Your task to perform on an android device: What's on my calendar tomorrow? Image 0: 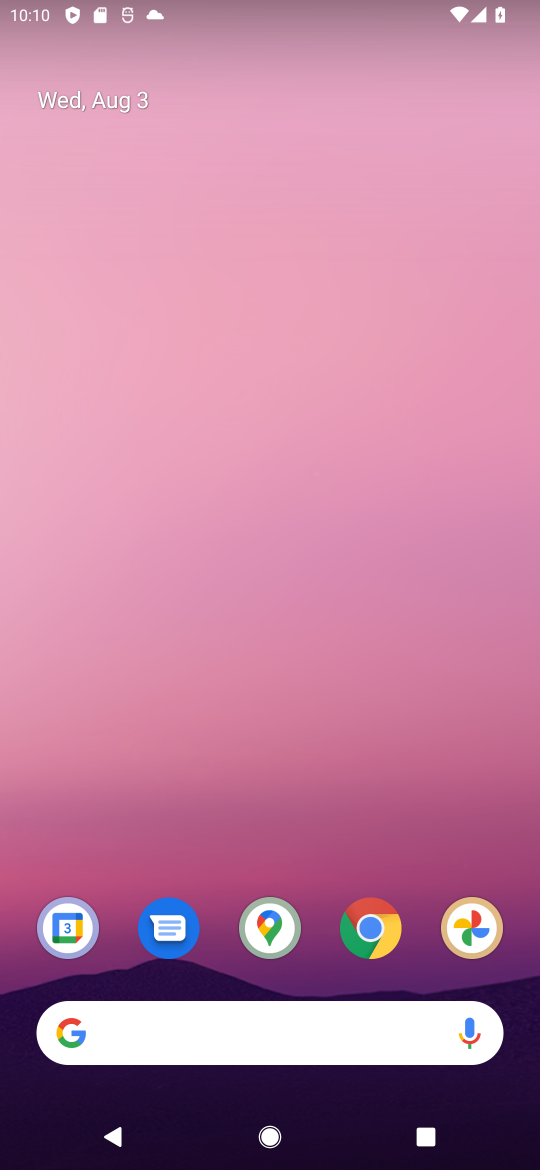
Step 0: click (68, 926)
Your task to perform on an android device: What's on my calendar tomorrow? Image 1: 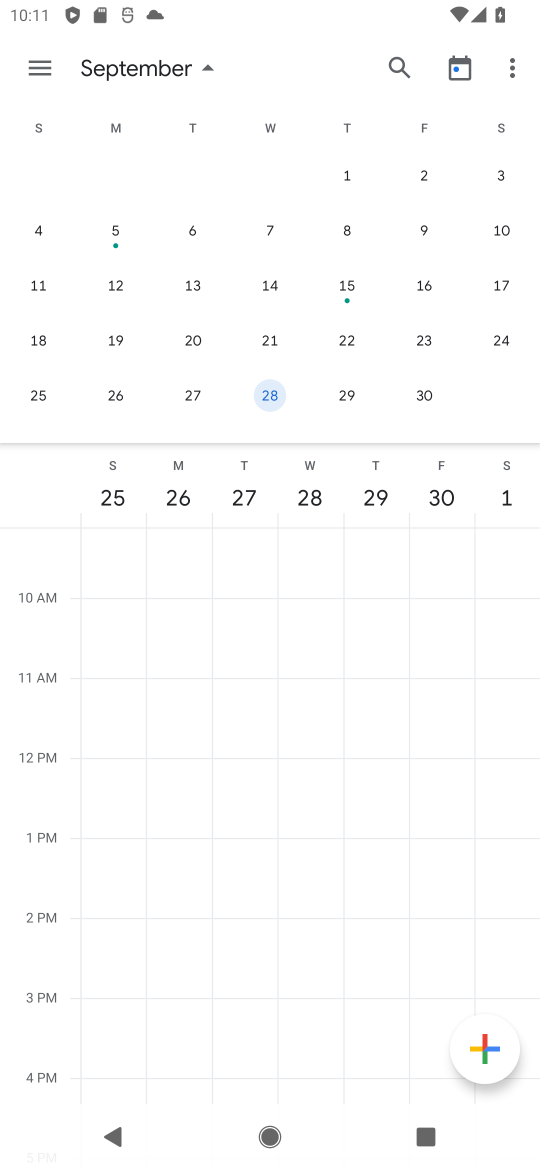
Step 1: click (43, 69)
Your task to perform on an android device: What's on my calendar tomorrow? Image 2: 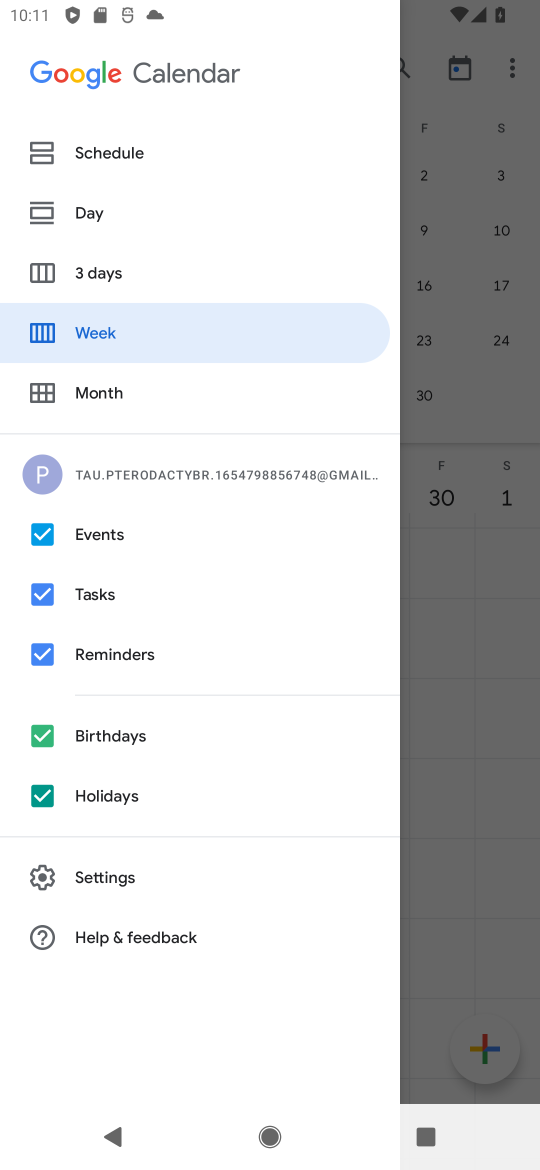
Step 2: click (130, 208)
Your task to perform on an android device: What's on my calendar tomorrow? Image 3: 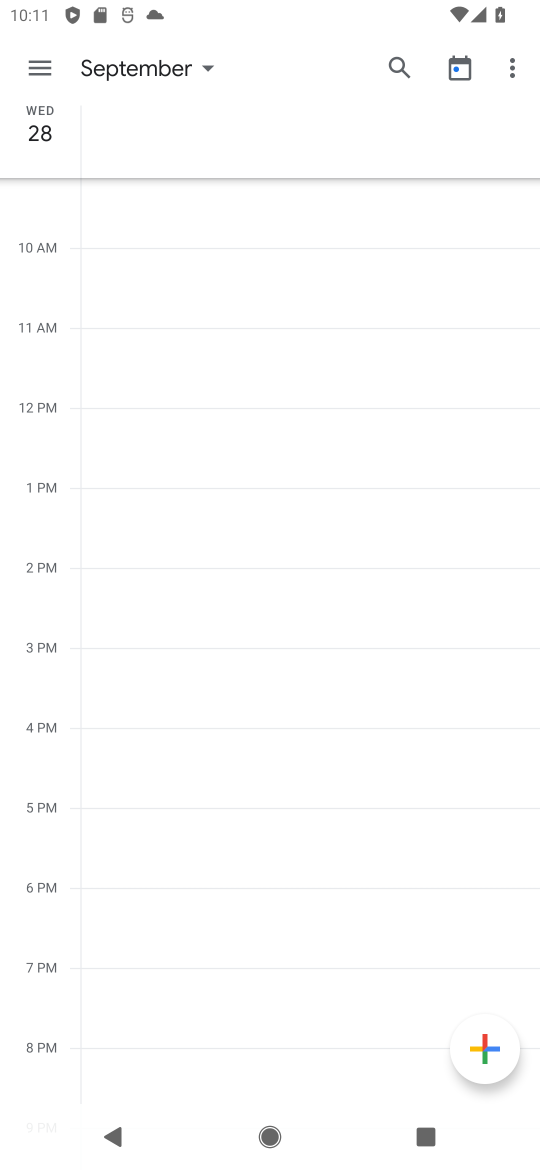
Step 3: click (160, 74)
Your task to perform on an android device: What's on my calendar tomorrow? Image 4: 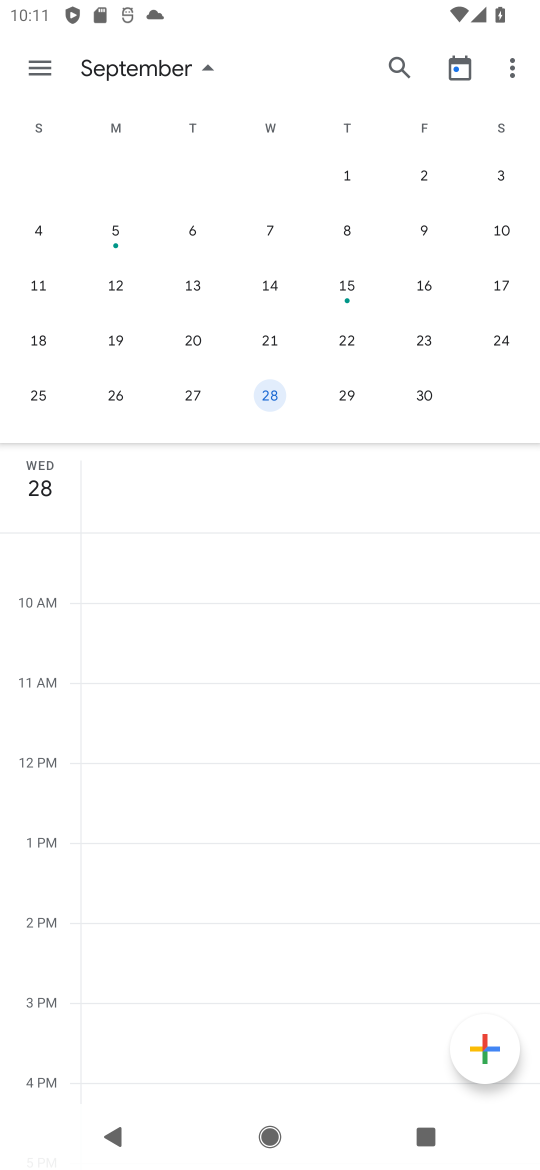
Step 4: drag from (35, 215) to (524, 403)
Your task to perform on an android device: What's on my calendar tomorrow? Image 5: 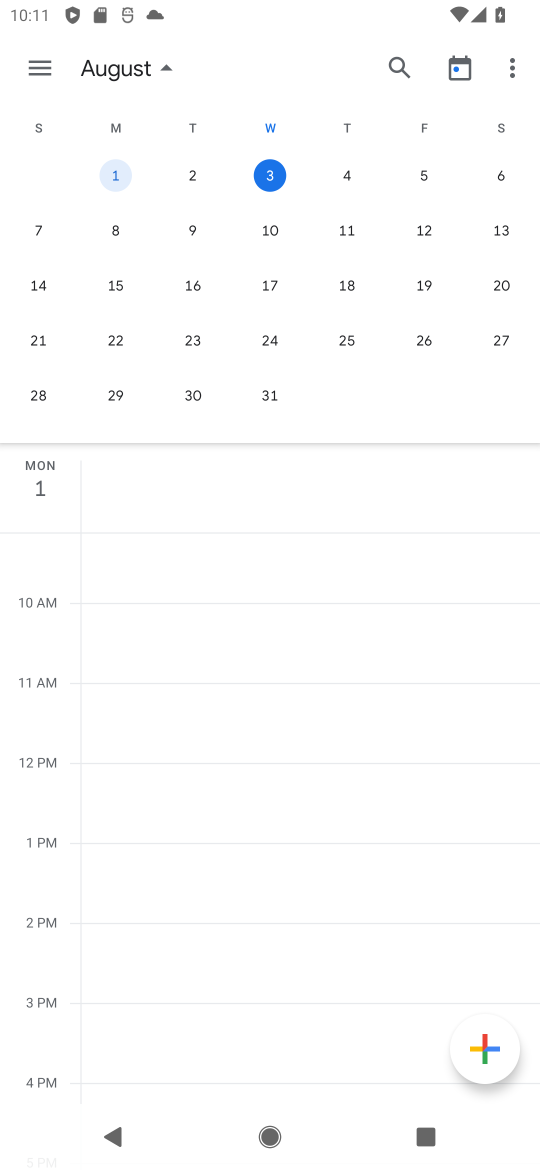
Step 5: click (349, 174)
Your task to perform on an android device: What's on my calendar tomorrow? Image 6: 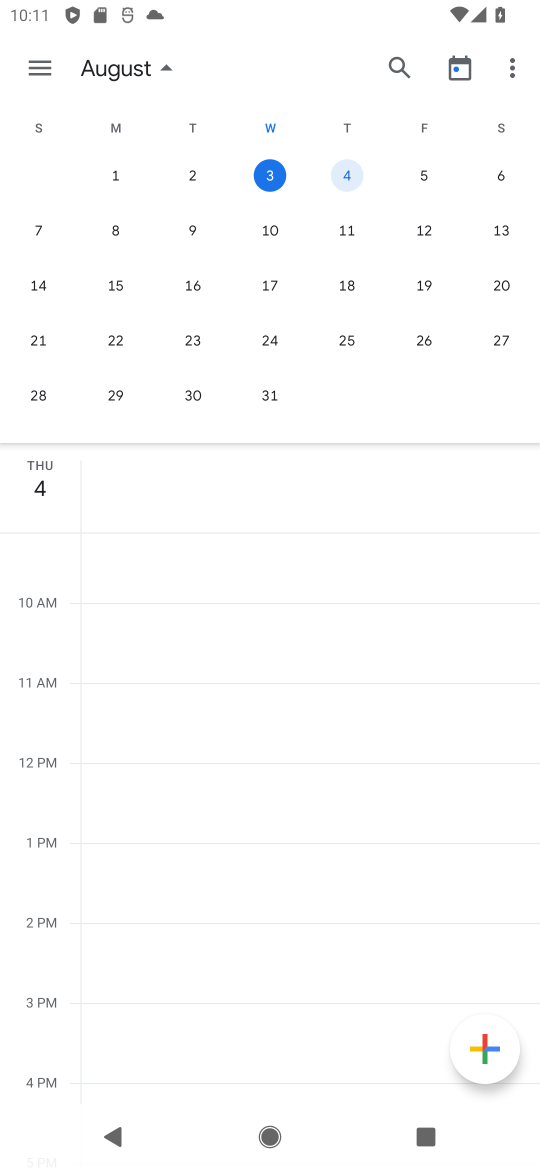
Step 6: task complete